Your task to perform on an android device: toggle location history Image 0: 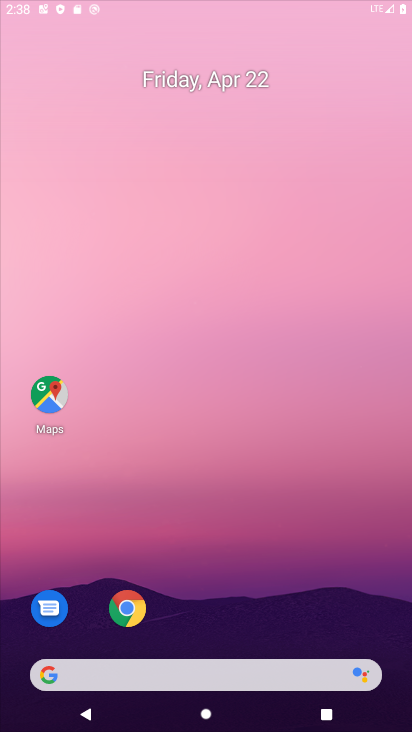
Step 0: click (279, 384)
Your task to perform on an android device: toggle location history Image 1: 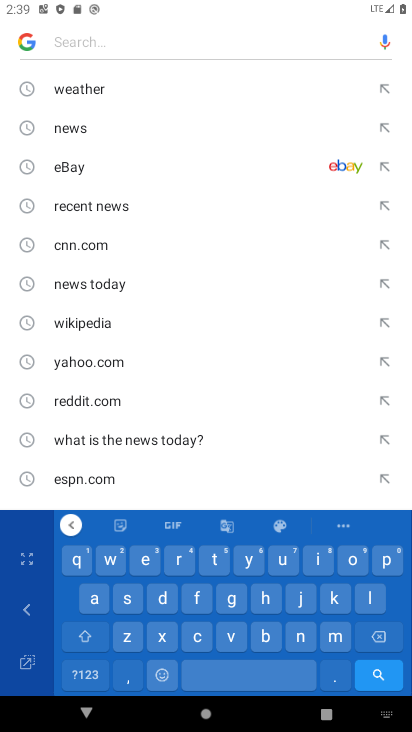
Step 1: click (26, 562)
Your task to perform on an android device: toggle location history Image 2: 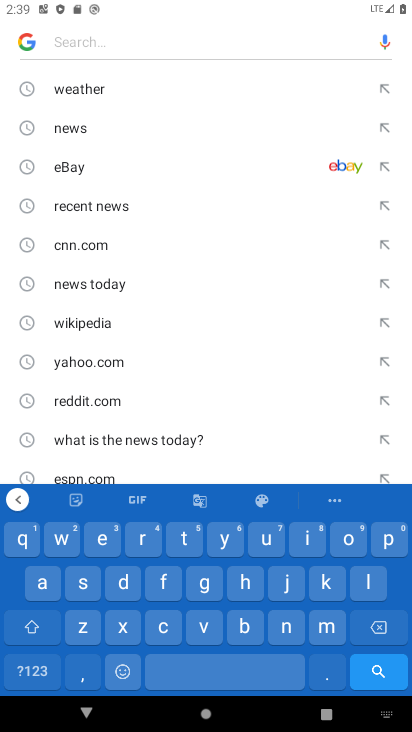
Step 2: press back button
Your task to perform on an android device: toggle location history Image 3: 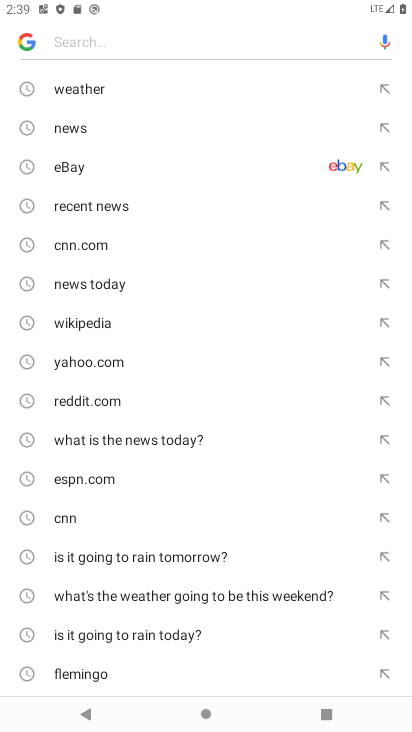
Step 3: press back button
Your task to perform on an android device: toggle location history Image 4: 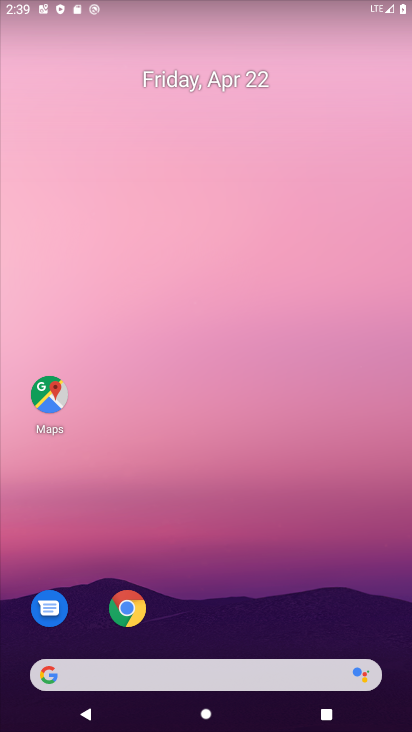
Step 4: drag from (272, 694) to (329, 213)
Your task to perform on an android device: toggle location history Image 5: 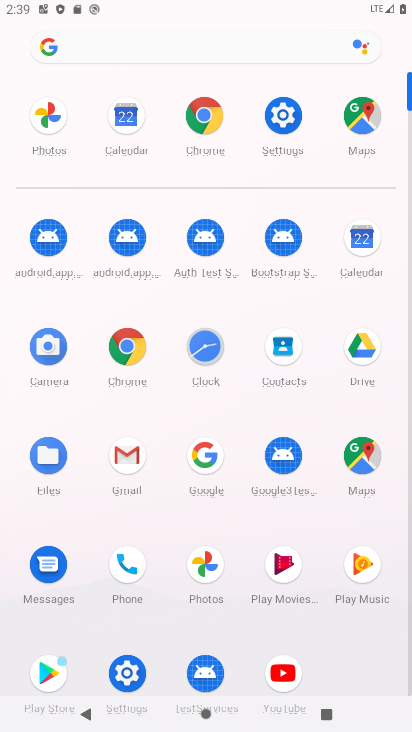
Step 5: click (290, 120)
Your task to perform on an android device: toggle location history Image 6: 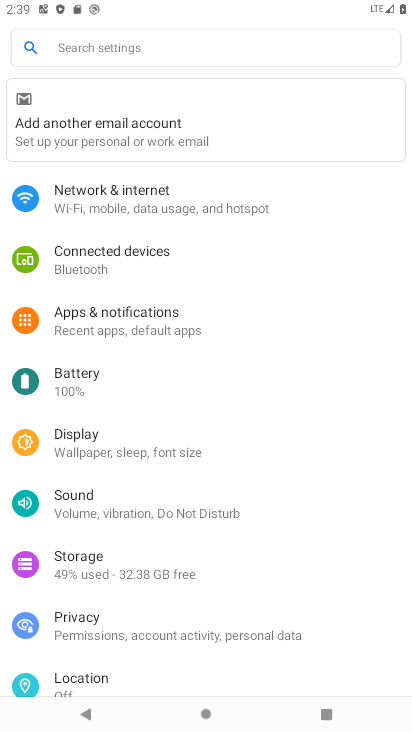
Step 6: click (94, 667)
Your task to perform on an android device: toggle location history Image 7: 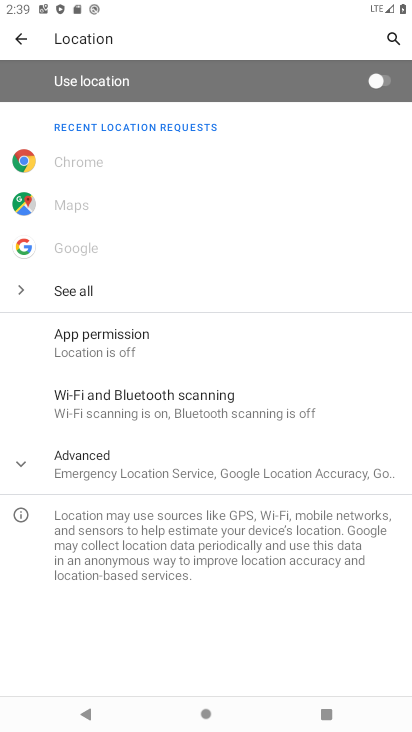
Step 7: click (364, 84)
Your task to perform on an android device: toggle location history Image 8: 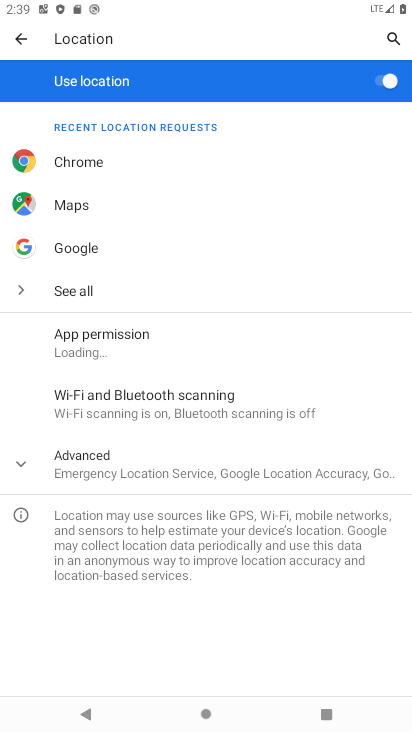
Step 8: click (367, 86)
Your task to perform on an android device: toggle location history Image 9: 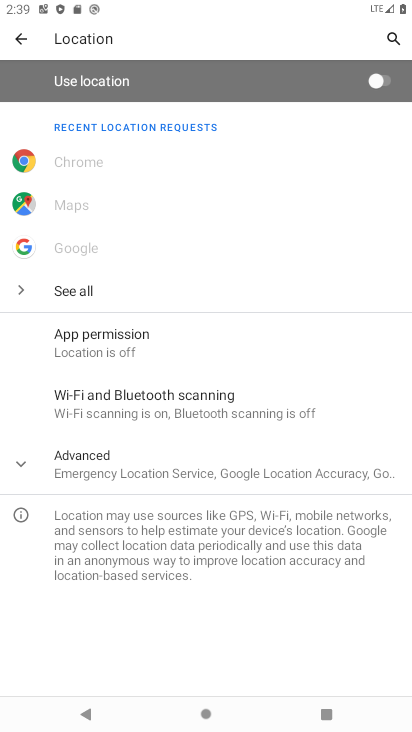
Step 9: task complete